Your task to perform on an android device: open a bookmark in the chrome app Image 0: 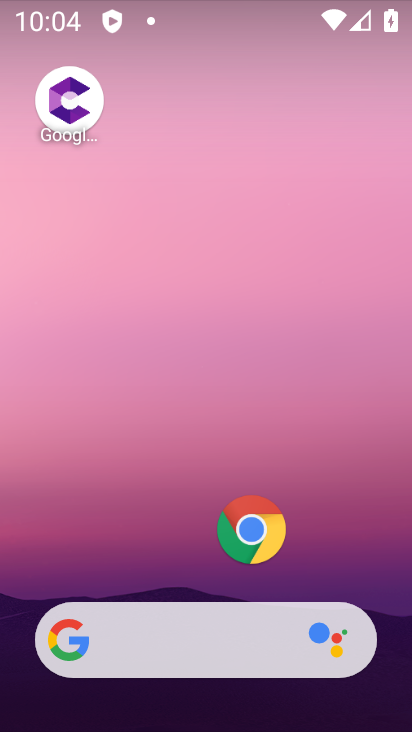
Step 0: click (251, 524)
Your task to perform on an android device: open a bookmark in the chrome app Image 1: 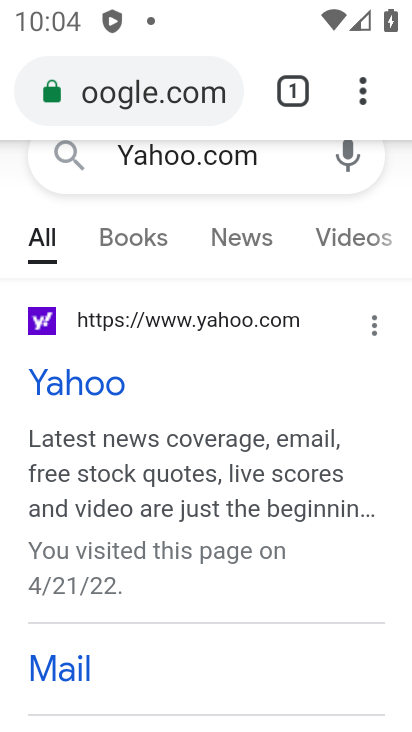
Step 1: click (364, 94)
Your task to perform on an android device: open a bookmark in the chrome app Image 2: 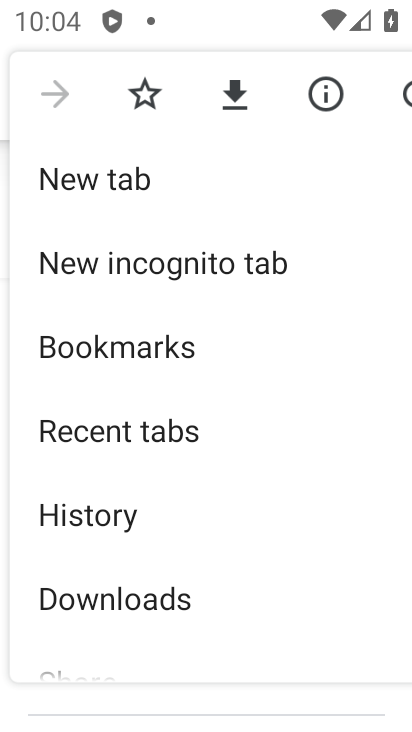
Step 2: click (153, 351)
Your task to perform on an android device: open a bookmark in the chrome app Image 3: 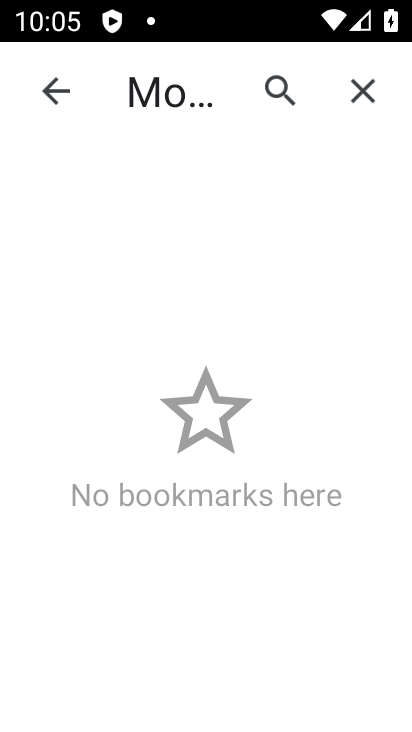
Step 3: task complete